Your task to perform on an android device: turn off wifi Image 0: 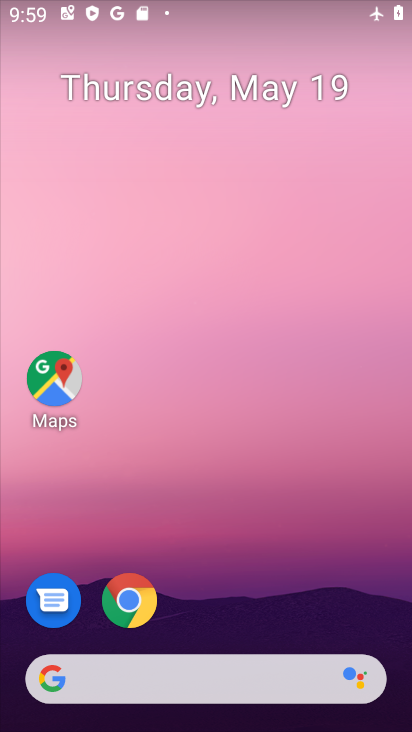
Step 0: drag from (257, 472) to (241, 13)
Your task to perform on an android device: turn off wifi Image 1: 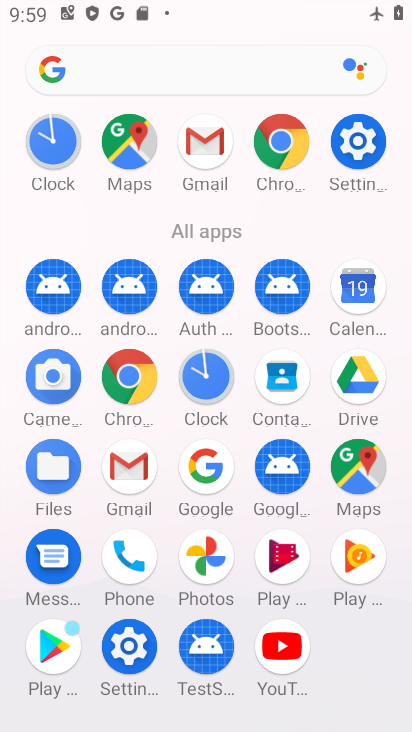
Step 1: drag from (7, 555) to (2, 224)
Your task to perform on an android device: turn off wifi Image 2: 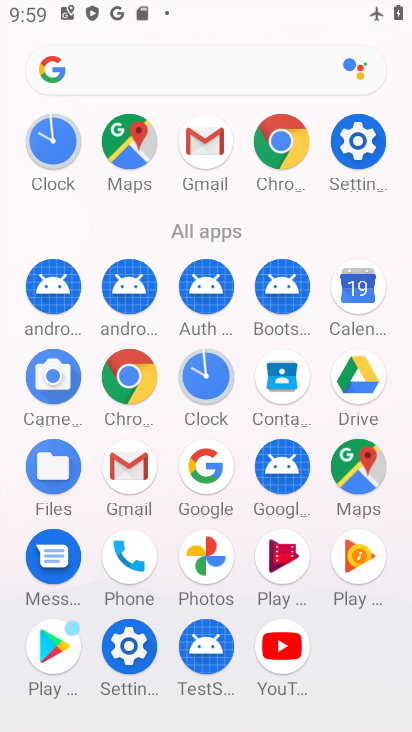
Step 2: click (125, 644)
Your task to perform on an android device: turn off wifi Image 3: 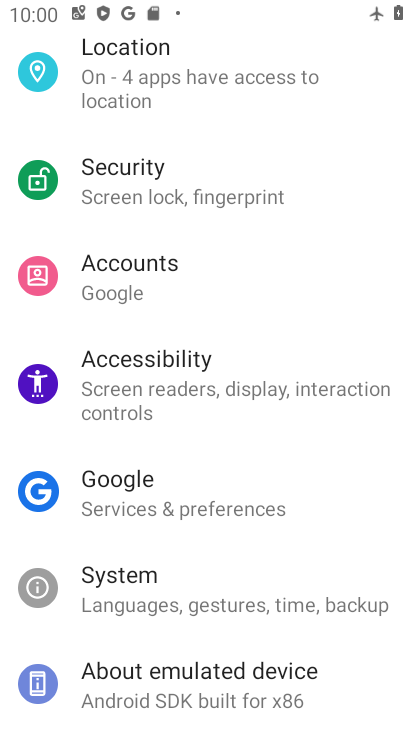
Step 3: drag from (254, 146) to (250, 619)
Your task to perform on an android device: turn off wifi Image 4: 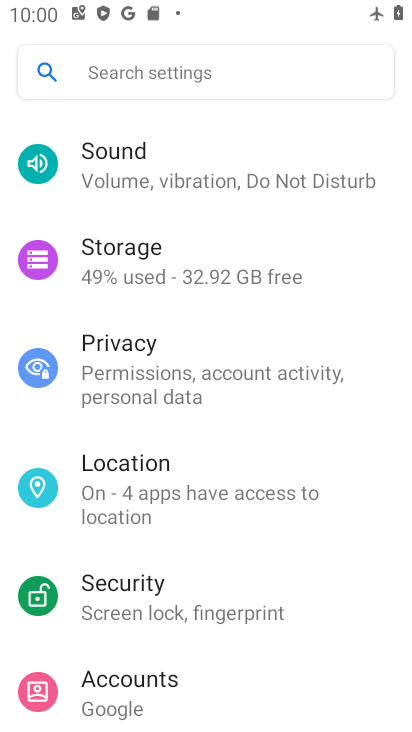
Step 4: drag from (258, 223) to (238, 623)
Your task to perform on an android device: turn off wifi Image 5: 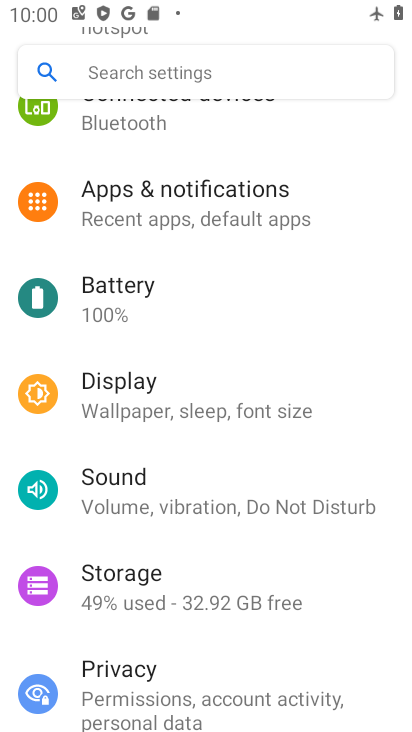
Step 5: drag from (253, 209) to (242, 578)
Your task to perform on an android device: turn off wifi Image 6: 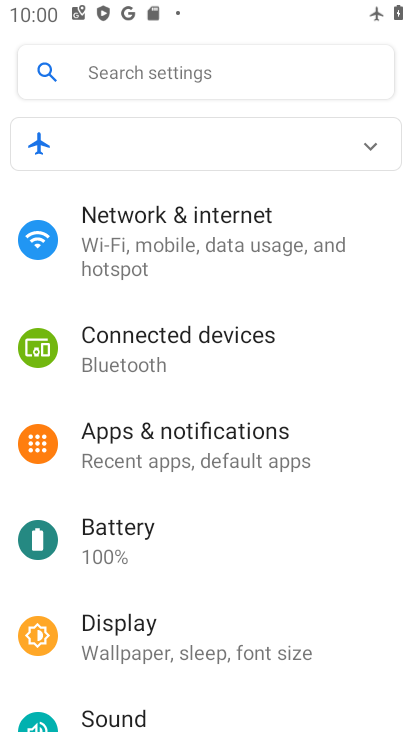
Step 6: click (202, 232)
Your task to perform on an android device: turn off wifi Image 7: 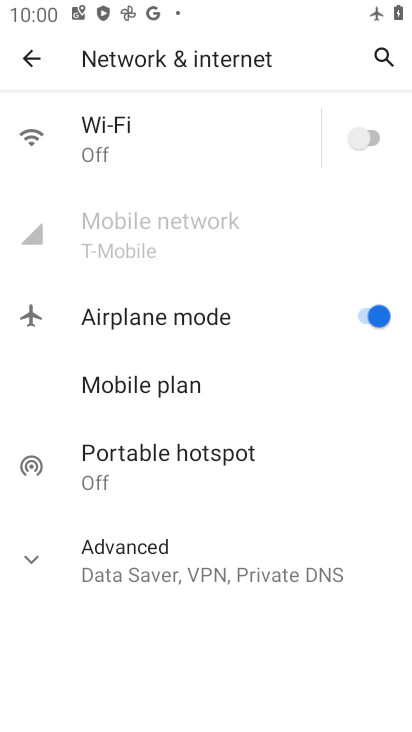
Step 7: click (58, 562)
Your task to perform on an android device: turn off wifi Image 8: 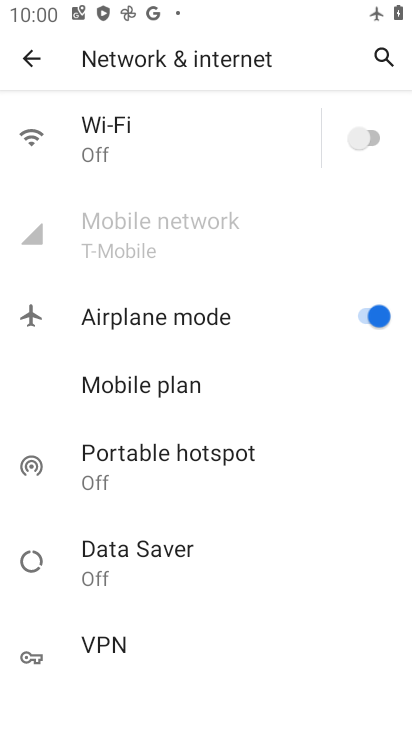
Step 8: task complete